Your task to perform on an android device: Go to Reddit.com Image 0: 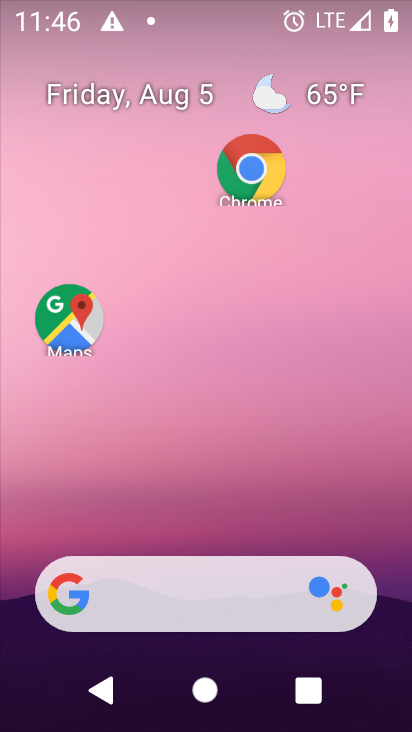
Step 0: click (234, 183)
Your task to perform on an android device: Go to Reddit.com Image 1: 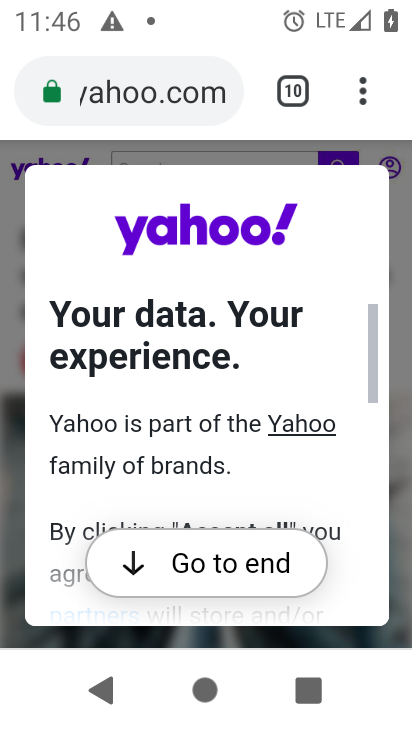
Step 1: click (305, 68)
Your task to perform on an android device: Go to Reddit.com Image 2: 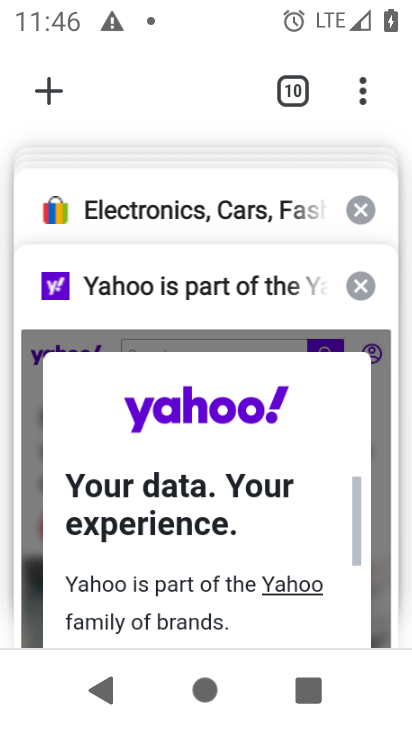
Step 2: click (56, 90)
Your task to perform on an android device: Go to Reddit.com Image 3: 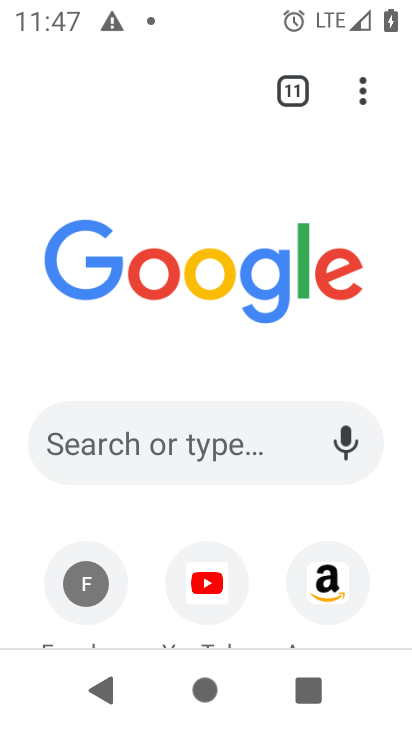
Step 3: click (156, 461)
Your task to perform on an android device: Go to Reddit.com Image 4: 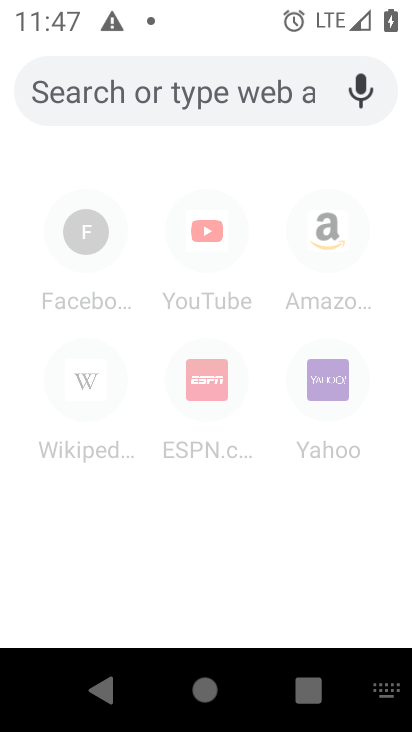
Step 4: type "Reddit.com"
Your task to perform on an android device: Go to Reddit.com Image 5: 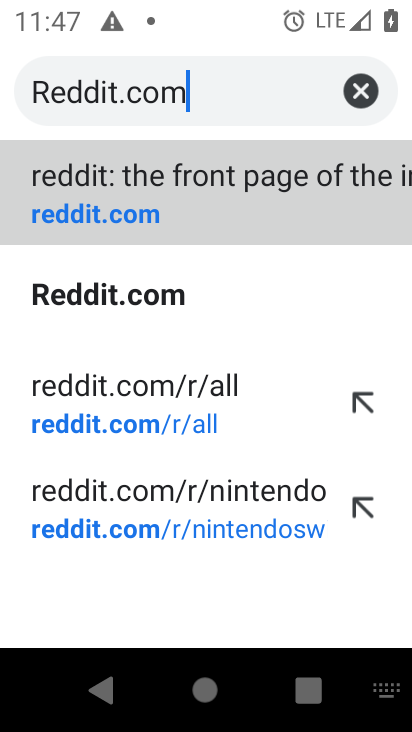
Step 5: type ""
Your task to perform on an android device: Go to Reddit.com Image 6: 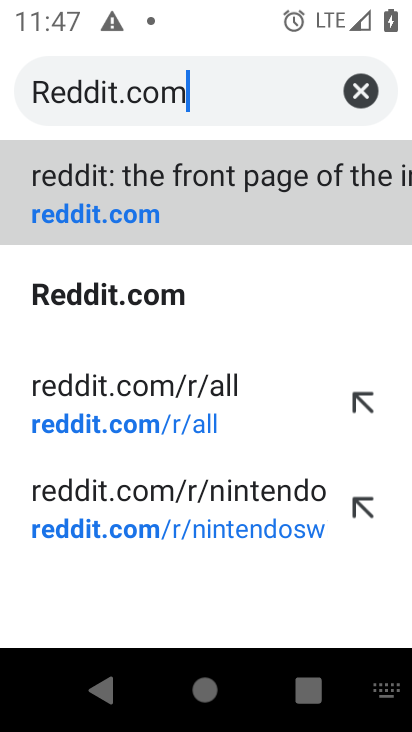
Step 6: click (219, 181)
Your task to perform on an android device: Go to Reddit.com Image 7: 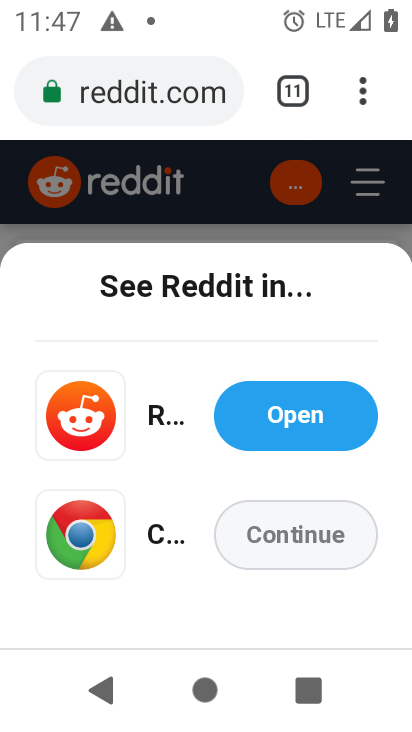
Step 7: task complete